Your task to perform on an android device: Open the phone app and click the voicemail tab. Image 0: 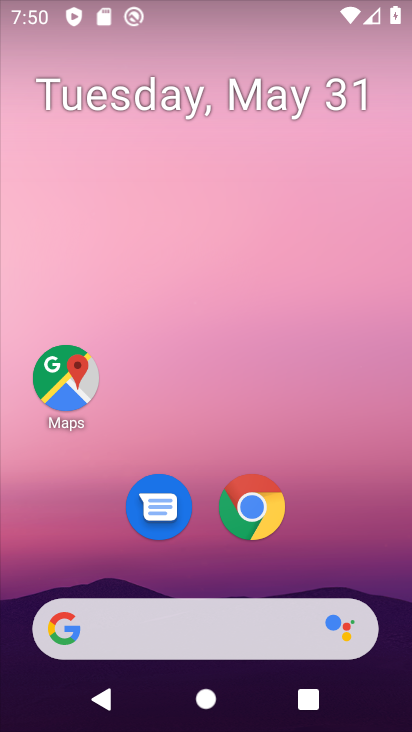
Step 0: drag from (350, 455) to (344, 126)
Your task to perform on an android device: Open the phone app and click the voicemail tab. Image 1: 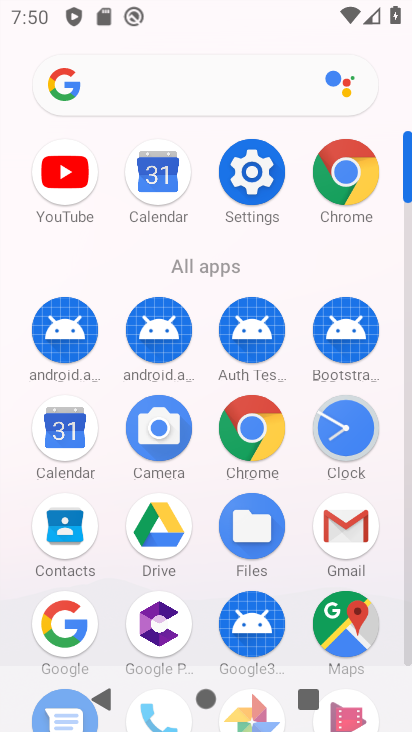
Step 1: drag from (204, 607) to (241, 321)
Your task to perform on an android device: Open the phone app and click the voicemail tab. Image 2: 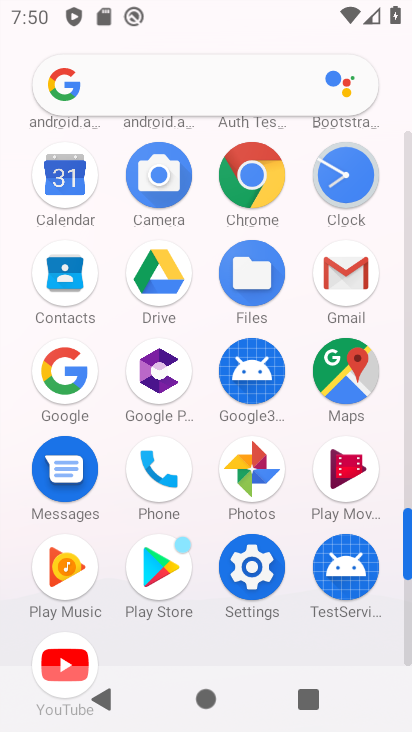
Step 2: click (170, 587)
Your task to perform on an android device: Open the phone app and click the voicemail tab. Image 3: 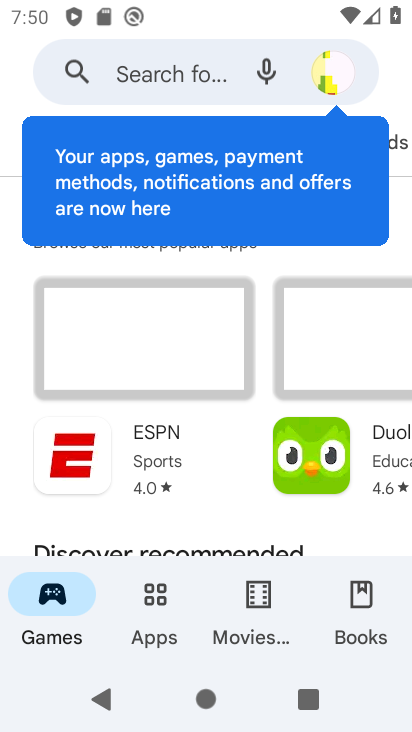
Step 3: press home button
Your task to perform on an android device: Open the phone app and click the voicemail tab. Image 4: 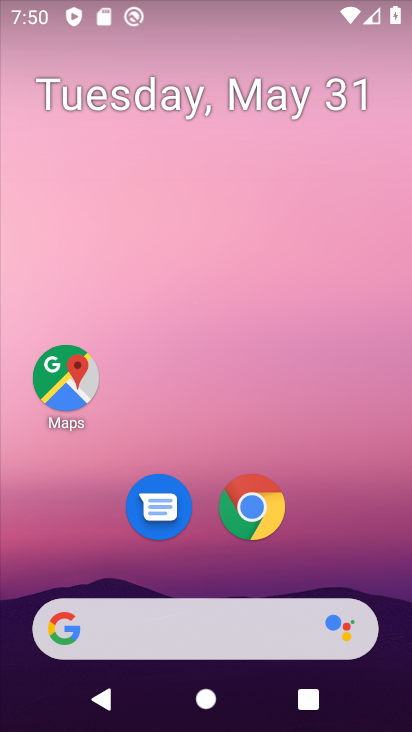
Step 4: drag from (384, 556) to (385, 209)
Your task to perform on an android device: Open the phone app and click the voicemail tab. Image 5: 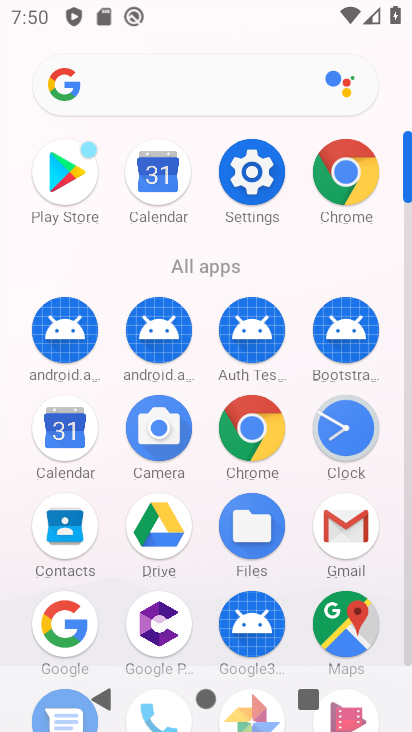
Step 5: drag from (201, 650) to (258, 379)
Your task to perform on an android device: Open the phone app and click the voicemail tab. Image 6: 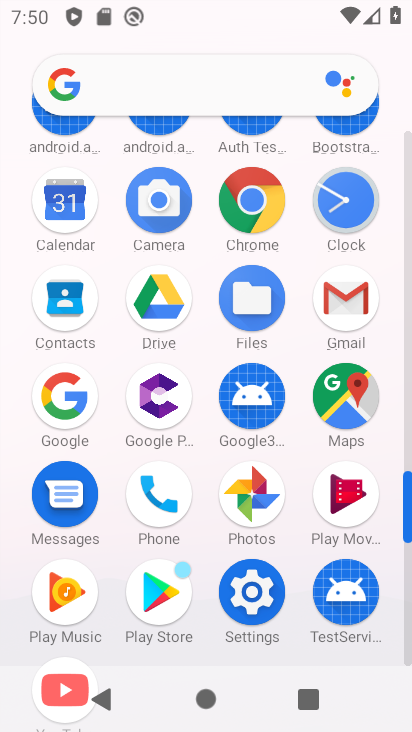
Step 6: click (159, 513)
Your task to perform on an android device: Open the phone app and click the voicemail tab. Image 7: 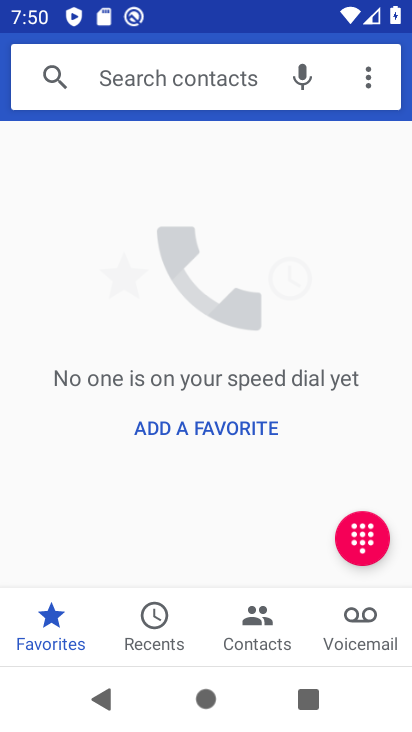
Step 7: click (366, 642)
Your task to perform on an android device: Open the phone app and click the voicemail tab. Image 8: 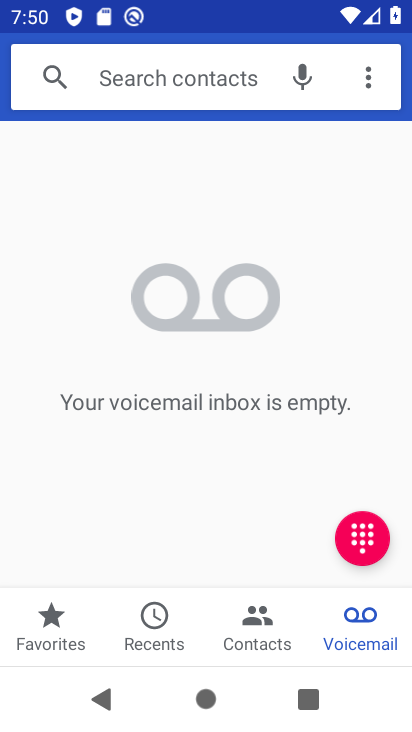
Step 8: task complete